Your task to perform on an android device: Go to calendar. Show me events next week Image 0: 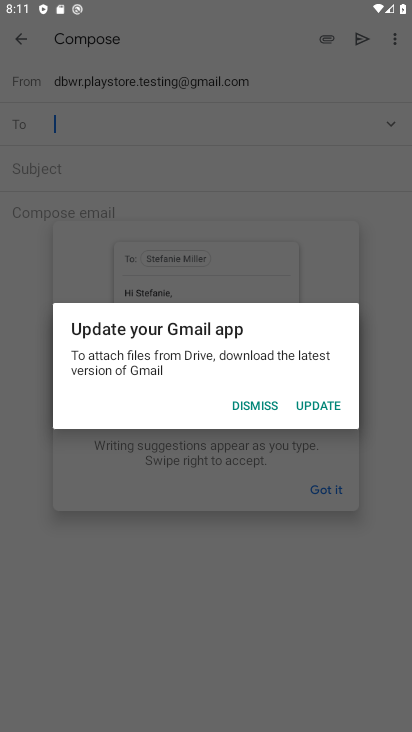
Step 0: drag from (266, 710) to (402, 616)
Your task to perform on an android device: Go to calendar. Show me events next week Image 1: 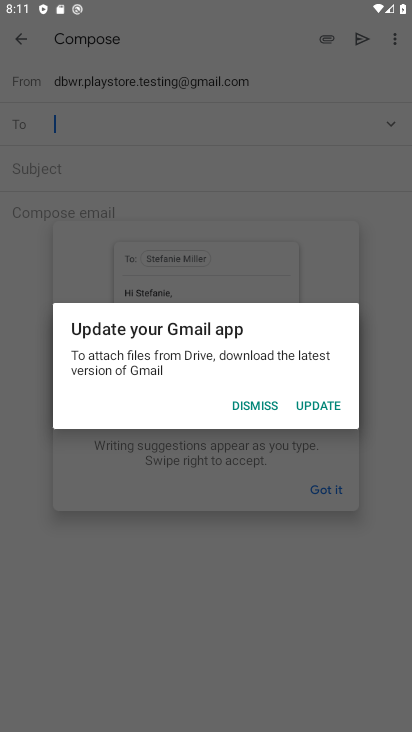
Step 1: press home button
Your task to perform on an android device: Go to calendar. Show me events next week Image 2: 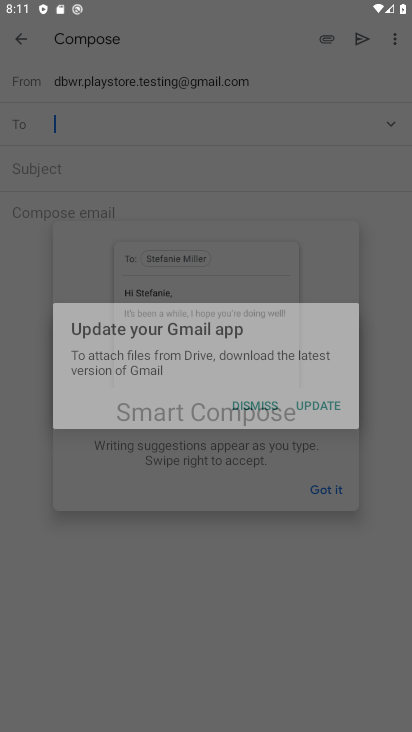
Step 2: drag from (402, 616) to (397, 294)
Your task to perform on an android device: Go to calendar. Show me events next week Image 3: 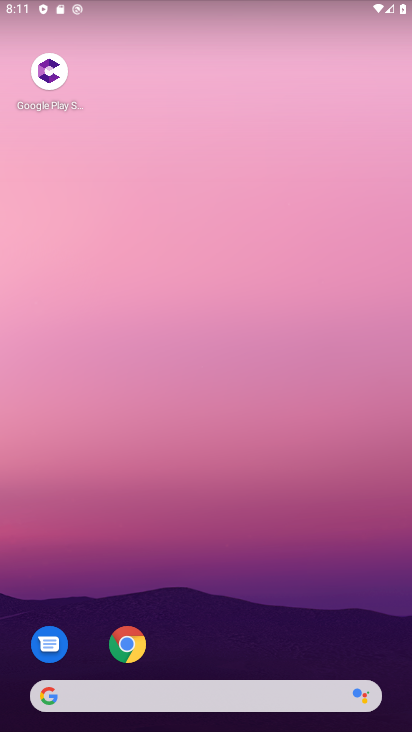
Step 3: drag from (294, 551) to (359, 158)
Your task to perform on an android device: Go to calendar. Show me events next week Image 4: 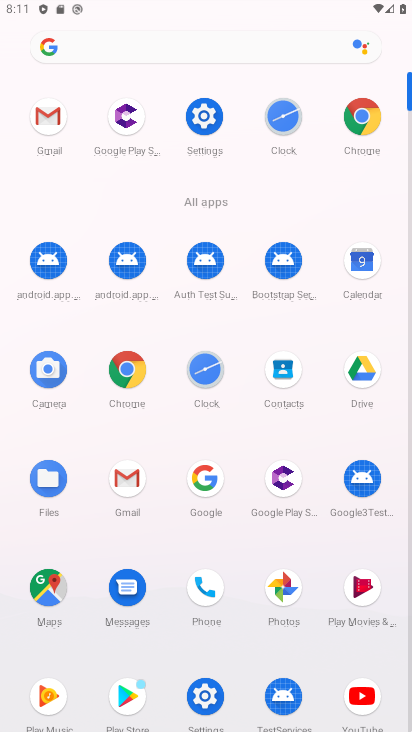
Step 4: click (367, 271)
Your task to perform on an android device: Go to calendar. Show me events next week Image 5: 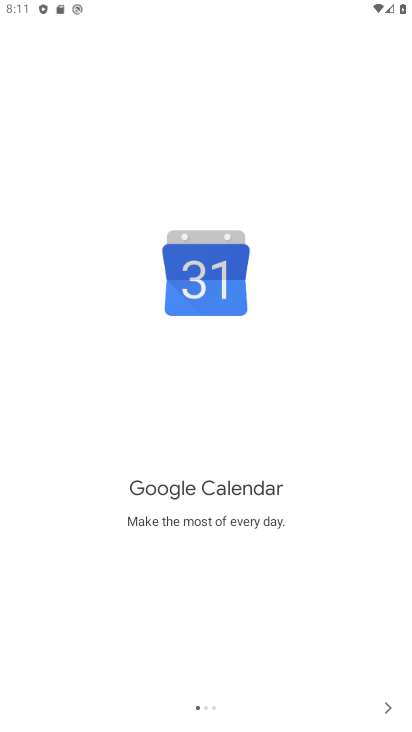
Step 5: click (388, 703)
Your task to perform on an android device: Go to calendar. Show me events next week Image 6: 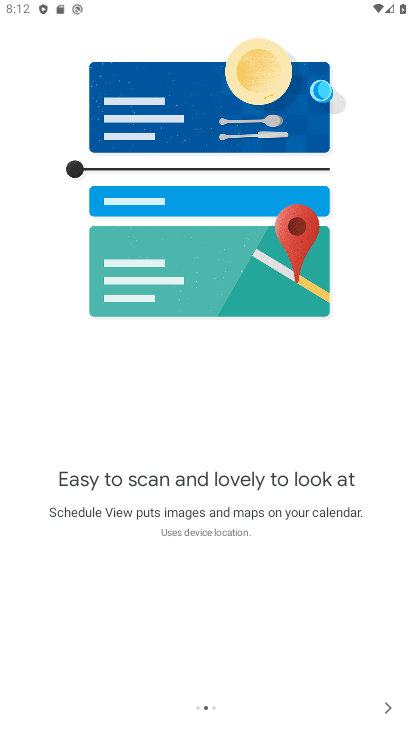
Step 6: click (362, 704)
Your task to perform on an android device: Go to calendar. Show me events next week Image 7: 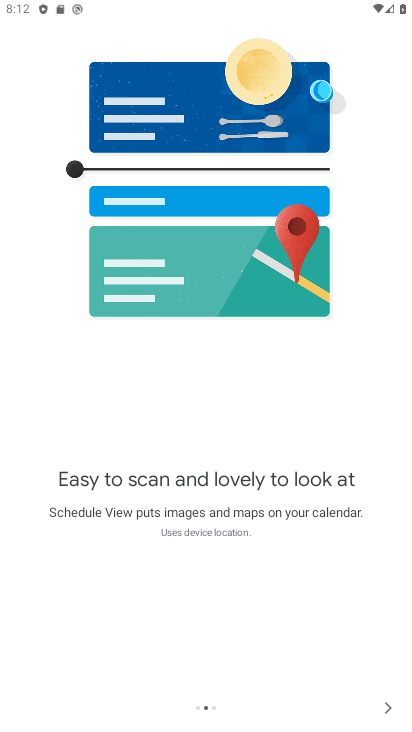
Step 7: click (370, 713)
Your task to perform on an android device: Go to calendar. Show me events next week Image 8: 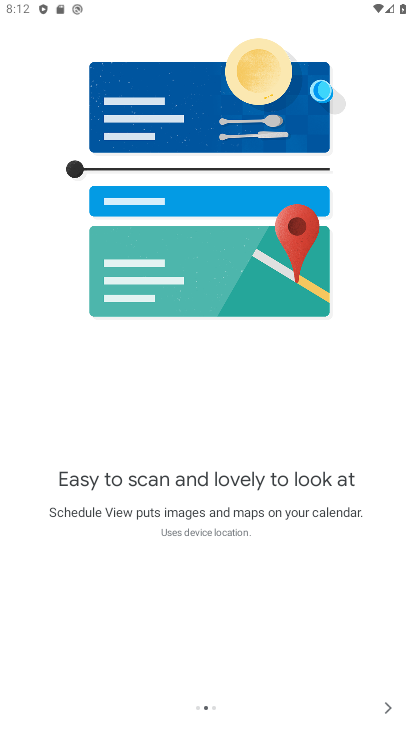
Step 8: click (386, 714)
Your task to perform on an android device: Go to calendar. Show me events next week Image 9: 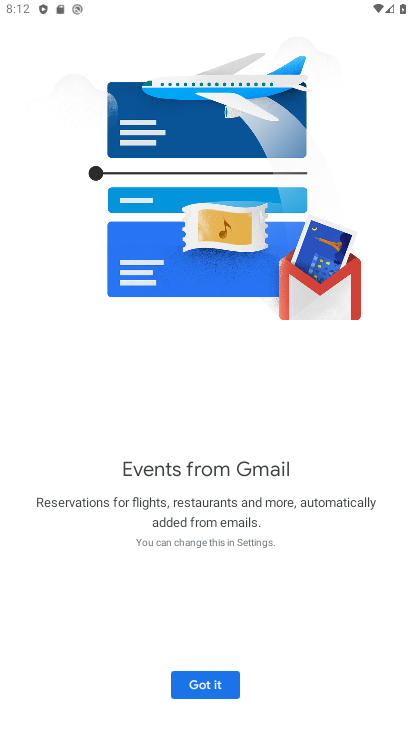
Step 9: click (225, 686)
Your task to perform on an android device: Go to calendar. Show me events next week Image 10: 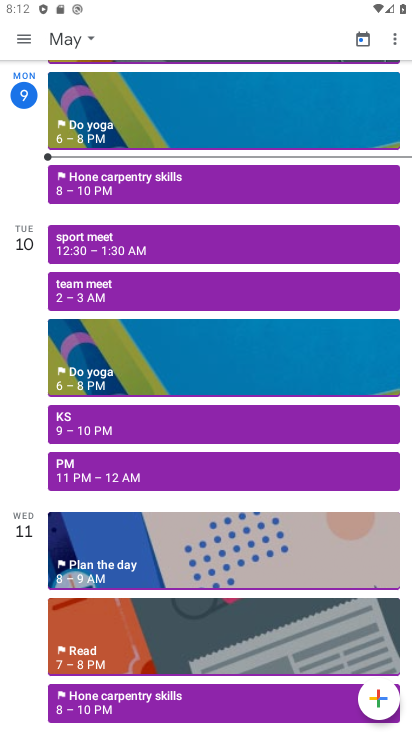
Step 10: click (62, 42)
Your task to perform on an android device: Go to calendar. Show me events next week Image 11: 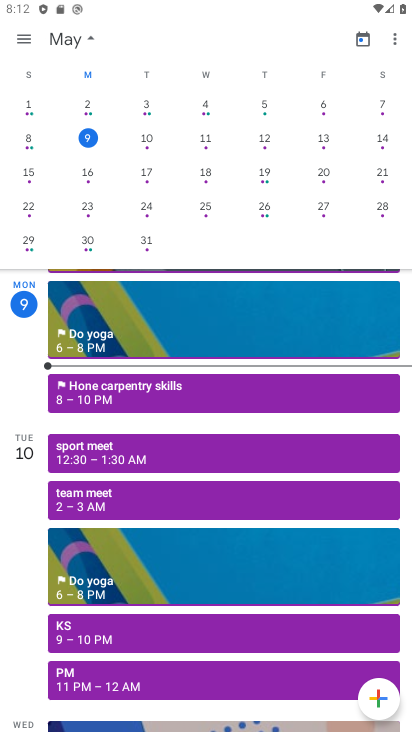
Step 11: click (34, 170)
Your task to perform on an android device: Go to calendar. Show me events next week Image 12: 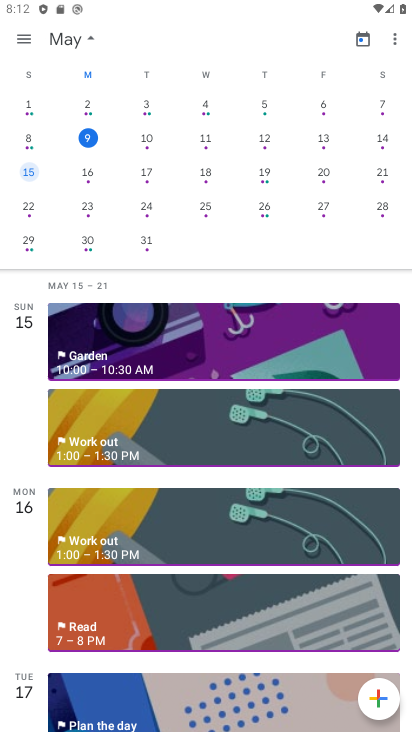
Step 12: click (89, 177)
Your task to perform on an android device: Go to calendar. Show me events next week Image 13: 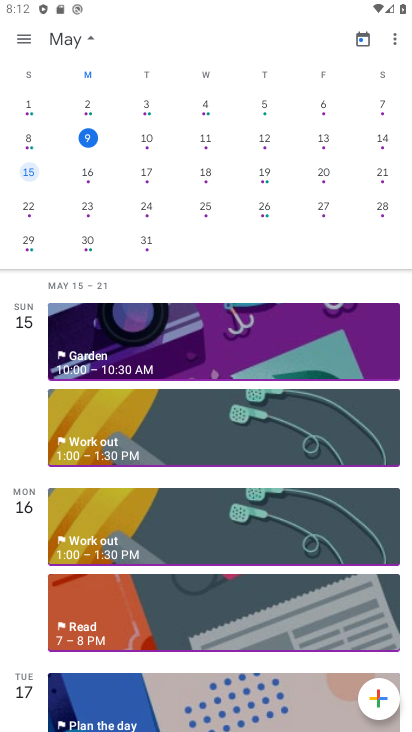
Step 13: click (89, 177)
Your task to perform on an android device: Go to calendar. Show me events next week Image 14: 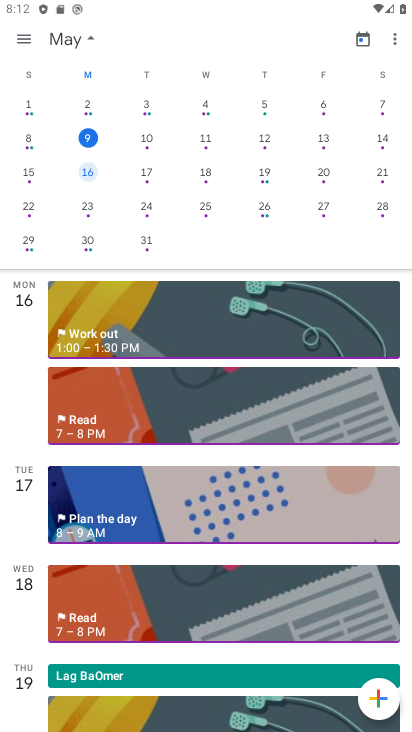
Step 14: click (159, 174)
Your task to perform on an android device: Go to calendar. Show me events next week Image 15: 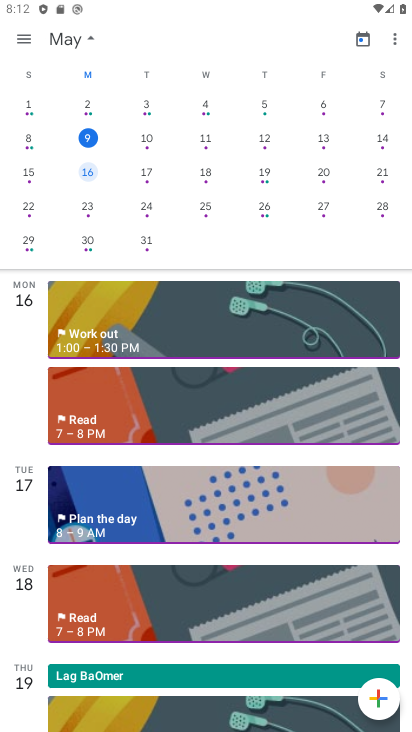
Step 15: click (215, 186)
Your task to perform on an android device: Go to calendar. Show me events next week Image 16: 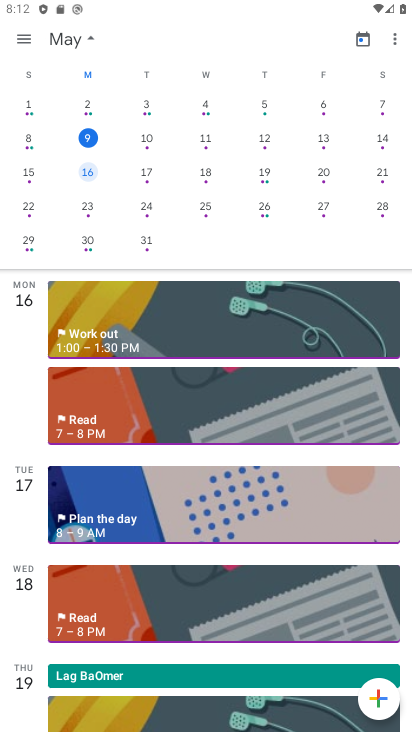
Step 16: click (148, 173)
Your task to perform on an android device: Go to calendar. Show me events next week Image 17: 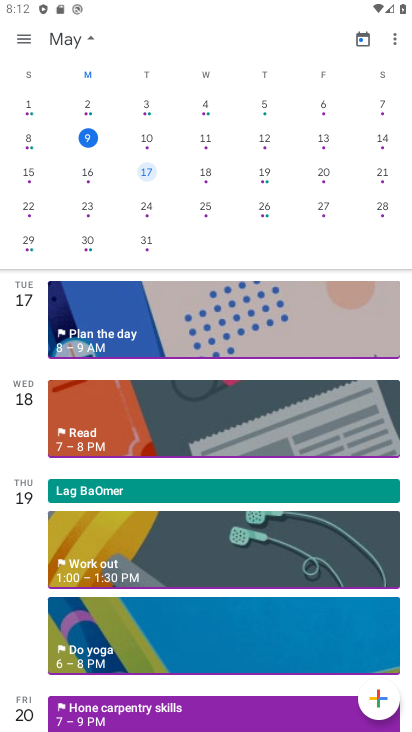
Step 17: click (204, 181)
Your task to perform on an android device: Go to calendar. Show me events next week Image 18: 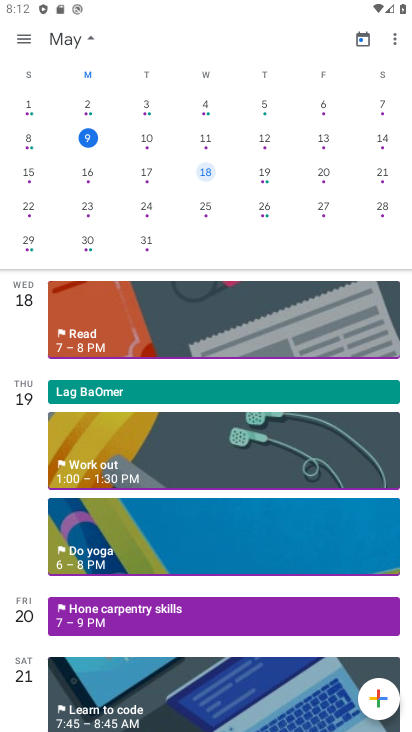
Step 18: click (266, 182)
Your task to perform on an android device: Go to calendar. Show me events next week Image 19: 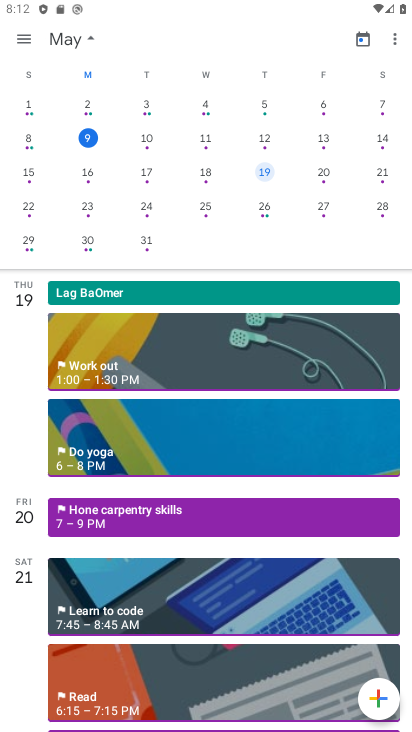
Step 19: click (320, 180)
Your task to perform on an android device: Go to calendar. Show me events next week Image 20: 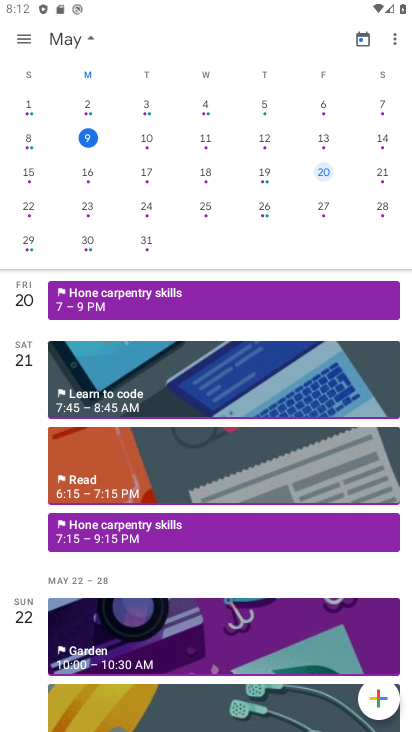
Step 20: click (383, 182)
Your task to perform on an android device: Go to calendar. Show me events next week Image 21: 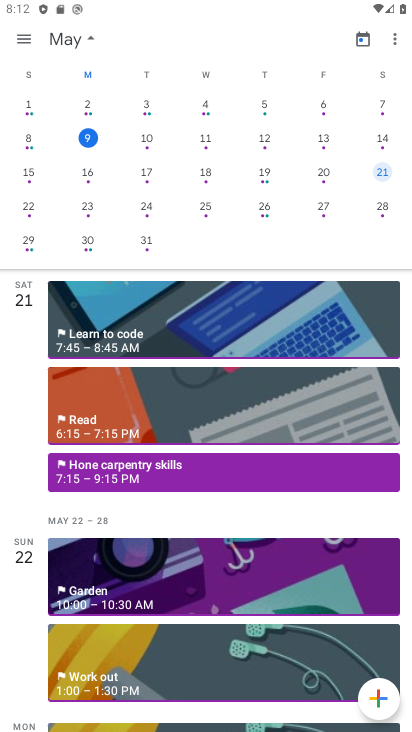
Step 21: task complete